Your task to perform on an android device: turn on airplane mode Image 0: 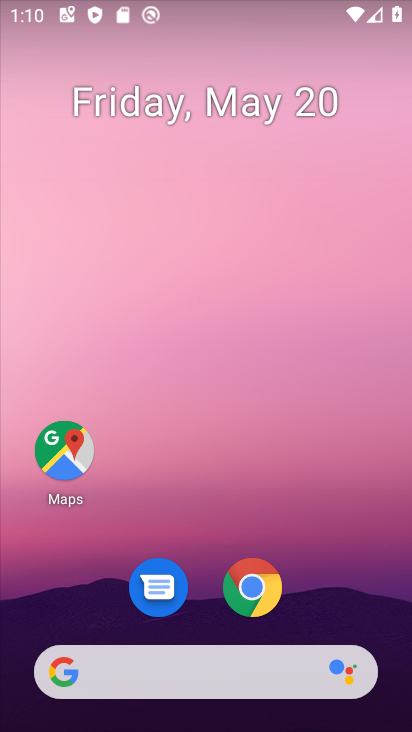
Step 0: drag from (318, 533) to (224, 146)
Your task to perform on an android device: turn on airplane mode Image 1: 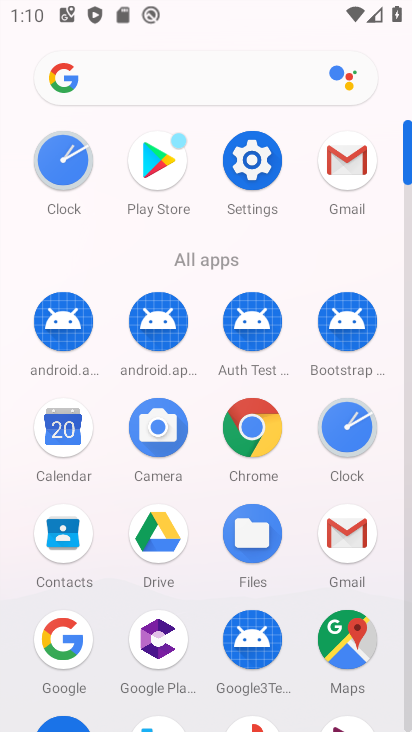
Step 1: click (246, 149)
Your task to perform on an android device: turn on airplane mode Image 2: 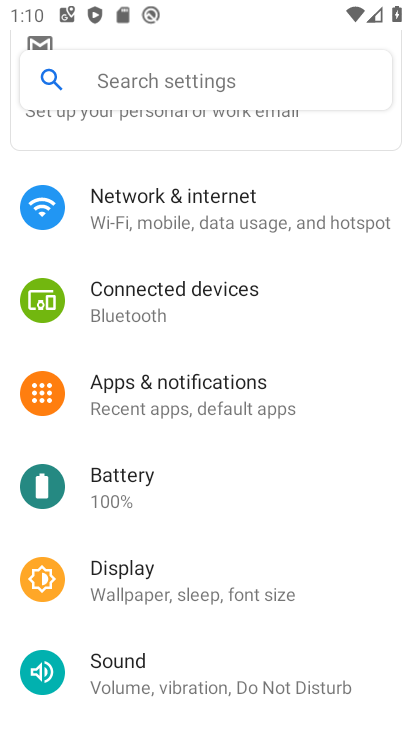
Step 2: drag from (173, 210) to (190, 525)
Your task to perform on an android device: turn on airplane mode Image 3: 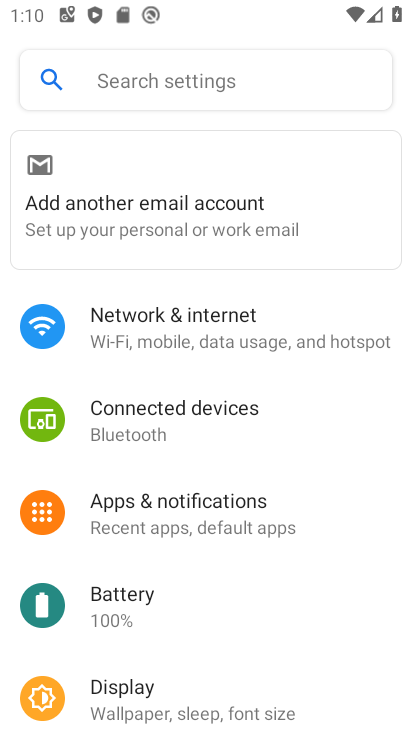
Step 3: click (159, 326)
Your task to perform on an android device: turn on airplane mode Image 4: 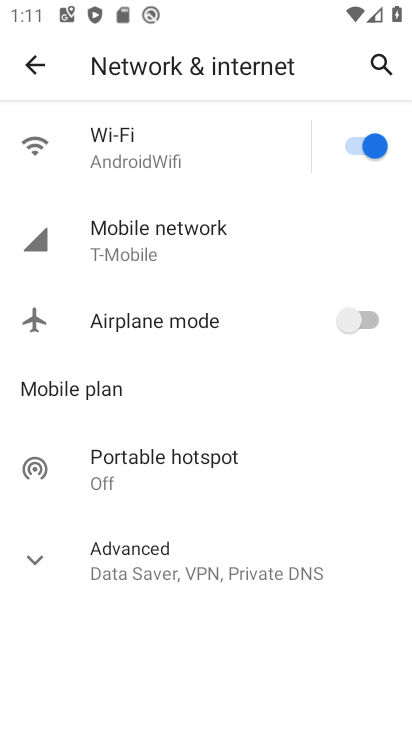
Step 4: click (356, 317)
Your task to perform on an android device: turn on airplane mode Image 5: 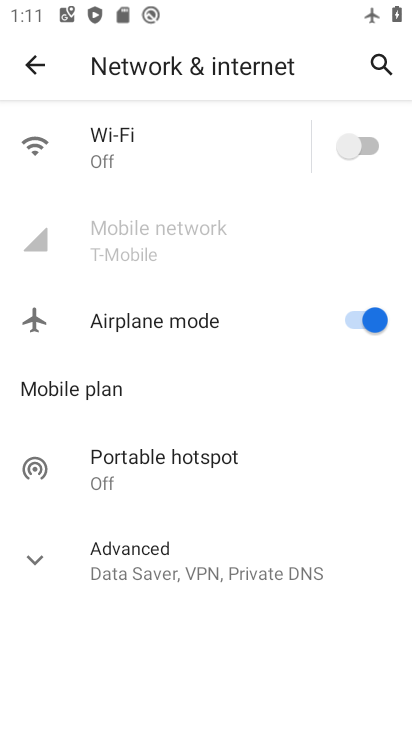
Step 5: task complete